Your task to perform on an android device: Go to accessibility settings Image 0: 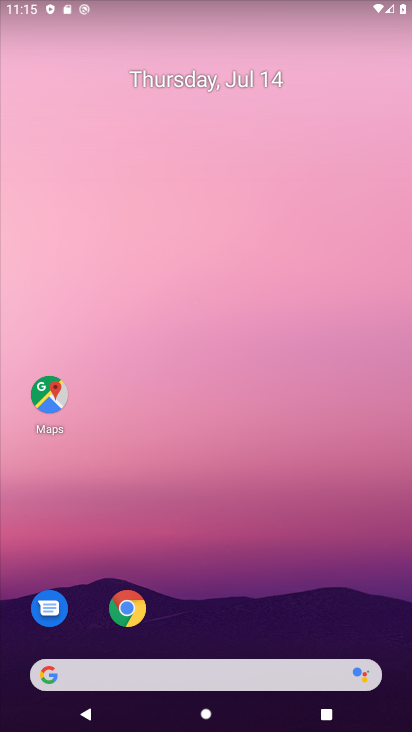
Step 0: drag from (326, 618) to (188, 13)
Your task to perform on an android device: Go to accessibility settings Image 1: 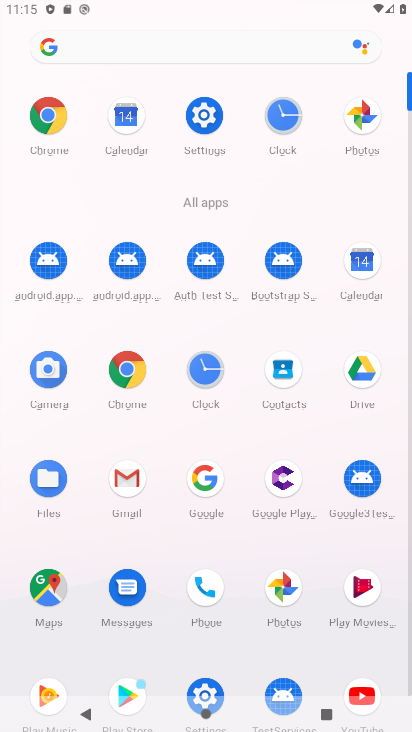
Step 1: click (218, 115)
Your task to perform on an android device: Go to accessibility settings Image 2: 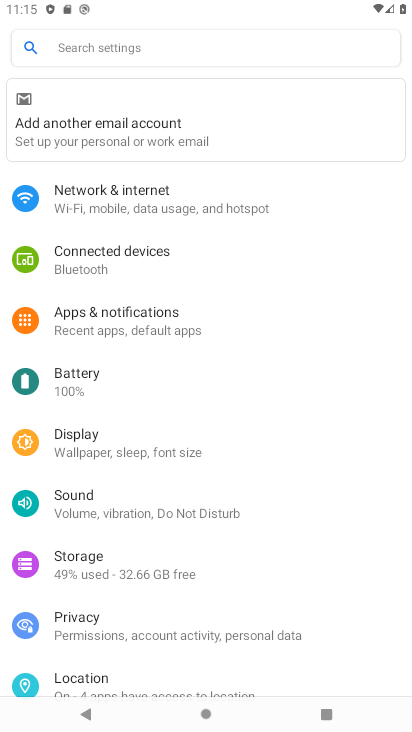
Step 2: drag from (173, 609) to (176, 256)
Your task to perform on an android device: Go to accessibility settings Image 3: 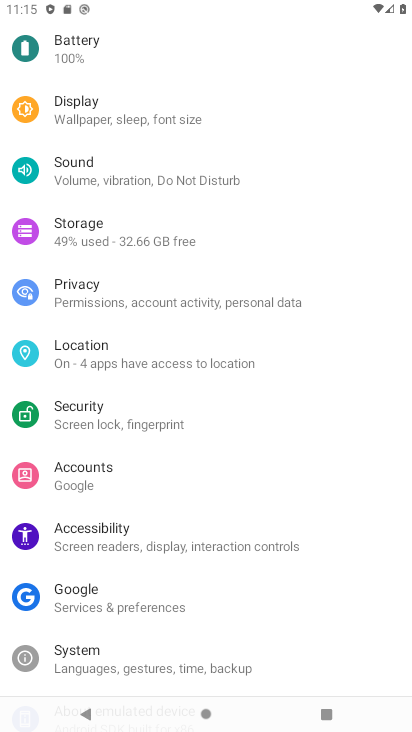
Step 3: click (144, 551)
Your task to perform on an android device: Go to accessibility settings Image 4: 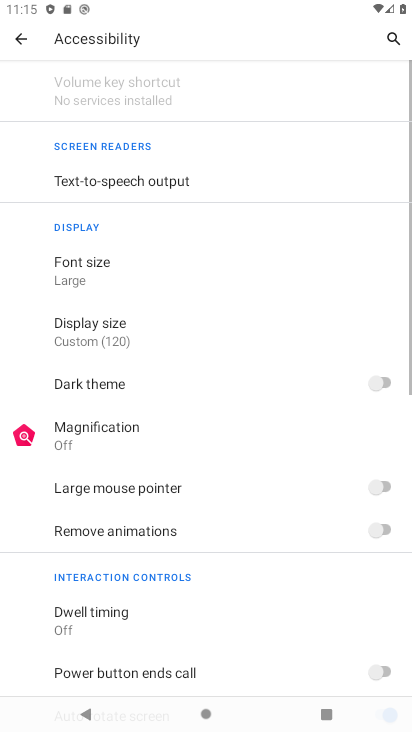
Step 4: task complete